Your task to perform on an android device: Open Yahoo.com Image 0: 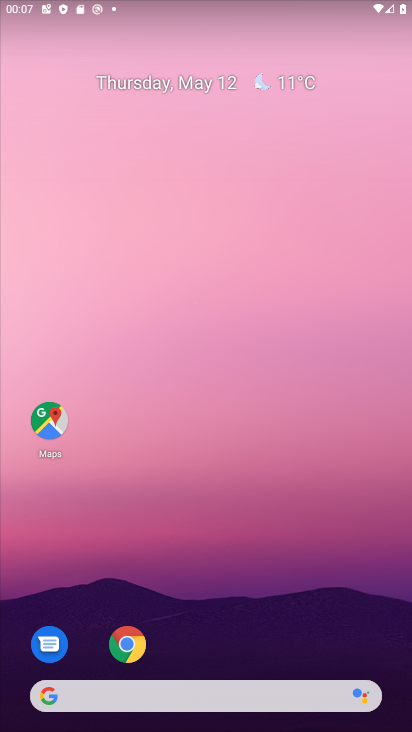
Step 0: press home button
Your task to perform on an android device: Open Yahoo.com Image 1: 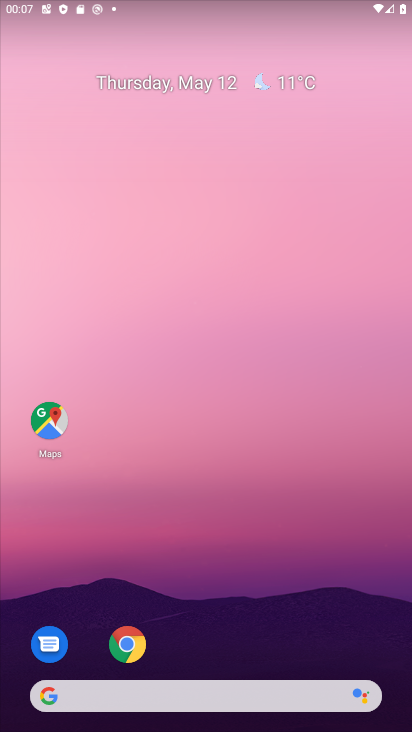
Step 1: drag from (230, 659) to (276, 27)
Your task to perform on an android device: Open Yahoo.com Image 2: 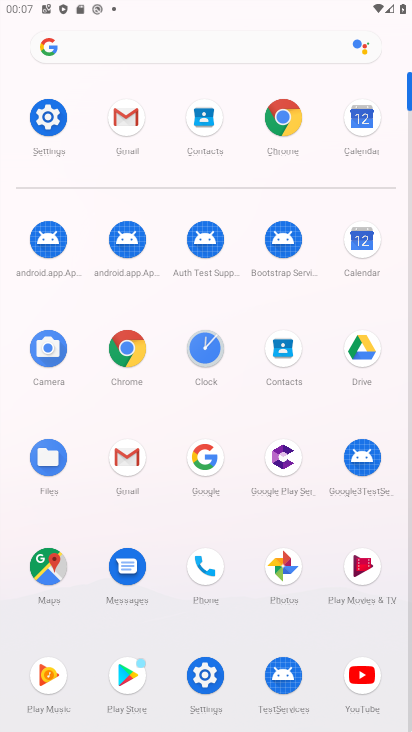
Step 2: click (284, 118)
Your task to perform on an android device: Open Yahoo.com Image 3: 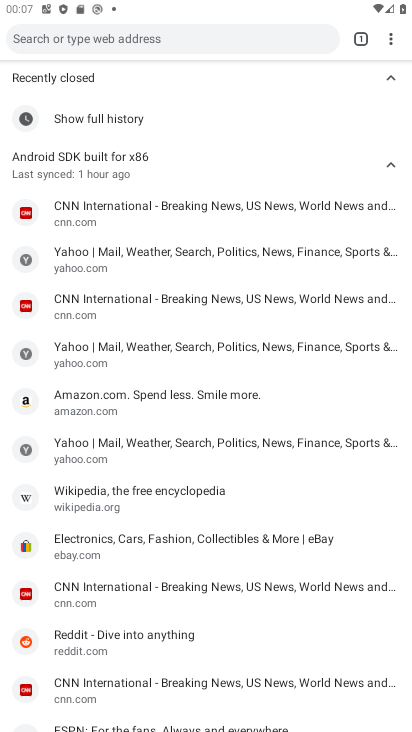
Step 3: click (361, 39)
Your task to perform on an android device: Open Yahoo.com Image 4: 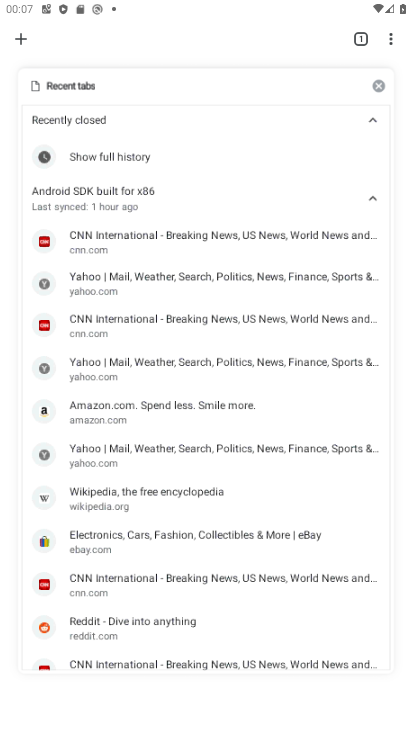
Step 4: click (378, 83)
Your task to perform on an android device: Open Yahoo.com Image 5: 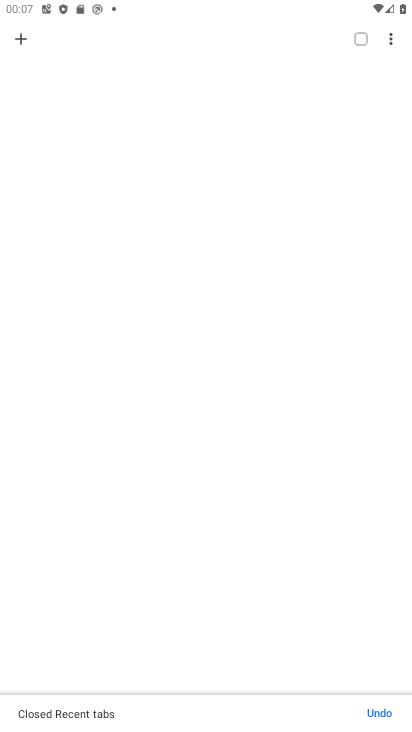
Step 5: click (21, 45)
Your task to perform on an android device: Open Yahoo.com Image 6: 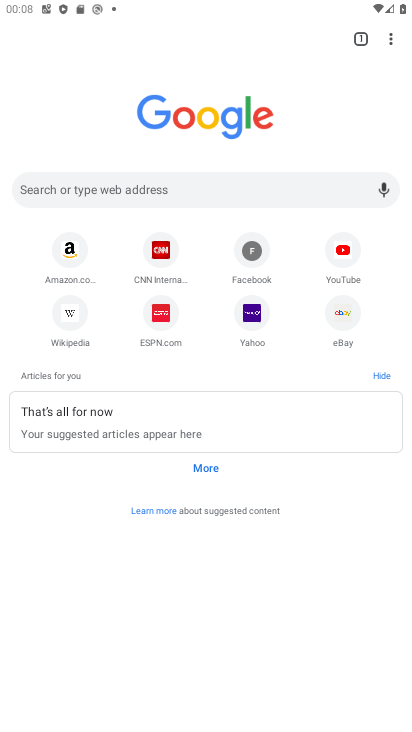
Step 6: click (251, 309)
Your task to perform on an android device: Open Yahoo.com Image 7: 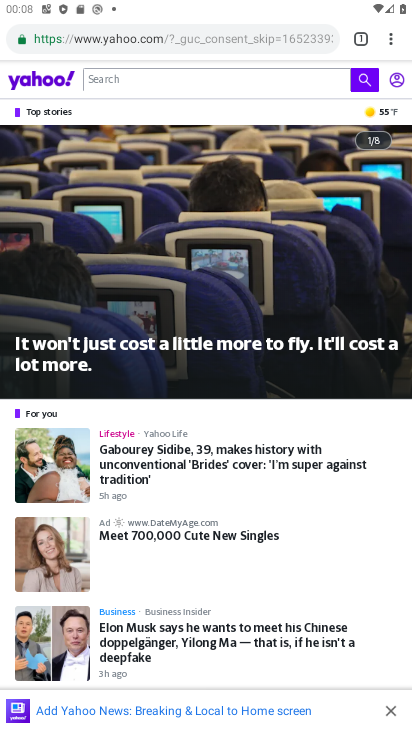
Step 7: task complete